Your task to perform on an android device: find which apps use the phone's location Image 0: 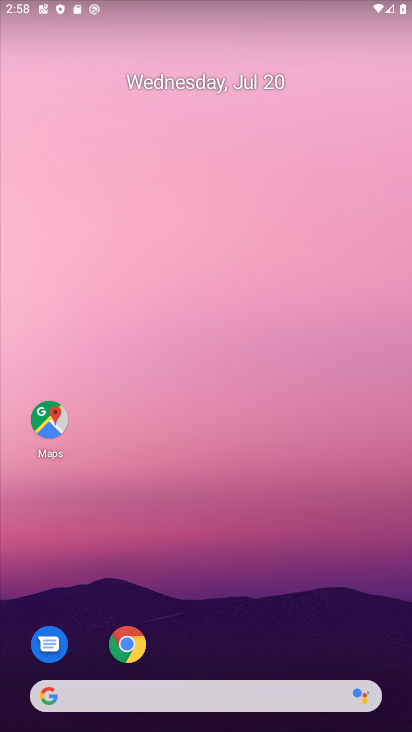
Step 0: task complete